Your task to perform on an android device: check the backup settings in the google photos Image 0: 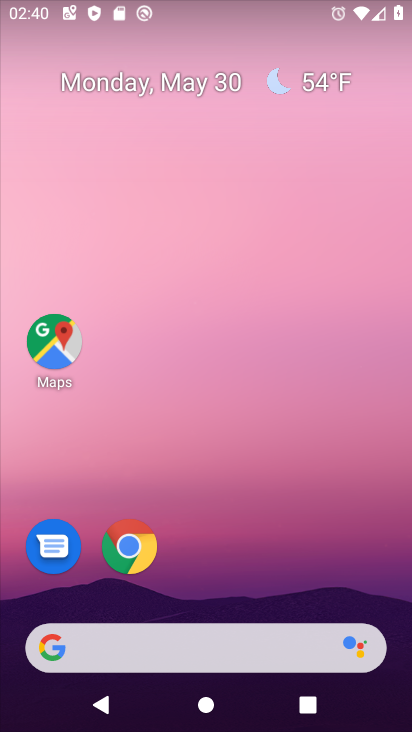
Step 0: drag from (214, 597) to (242, 100)
Your task to perform on an android device: check the backup settings in the google photos Image 1: 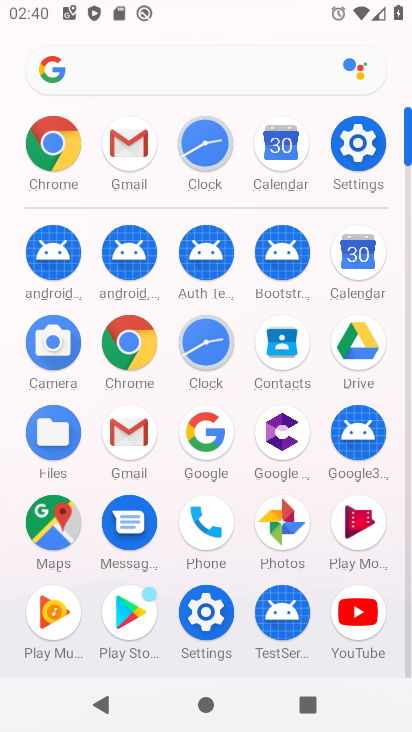
Step 1: click (279, 518)
Your task to perform on an android device: check the backup settings in the google photos Image 2: 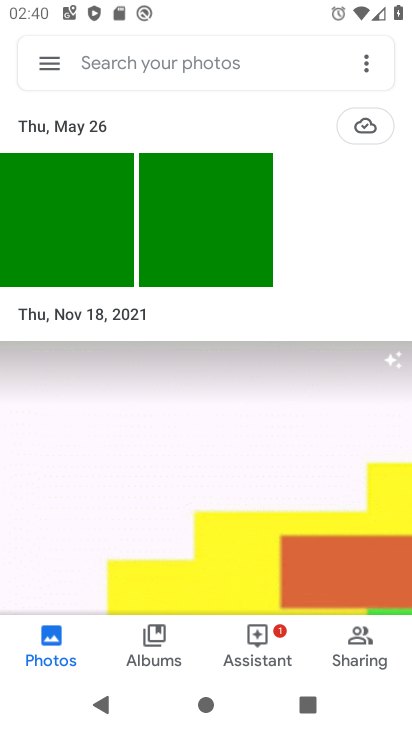
Step 2: click (49, 54)
Your task to perform on an android device: check the backup settings in the google photos Image 3: 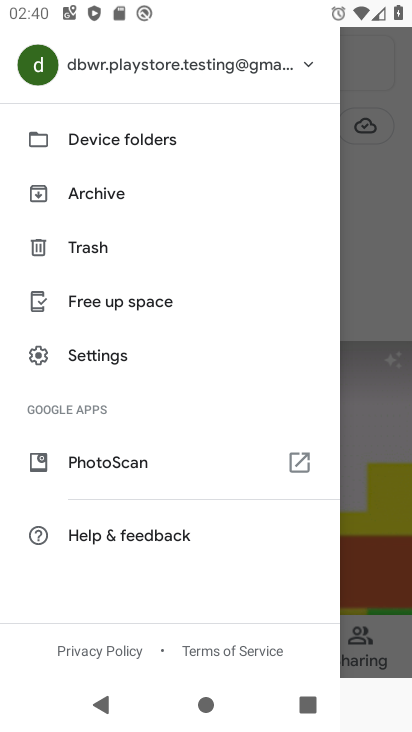
Step 3: click (136, 357)
Your task to perform on an android device: check the backup settings in the google photos Image 4: 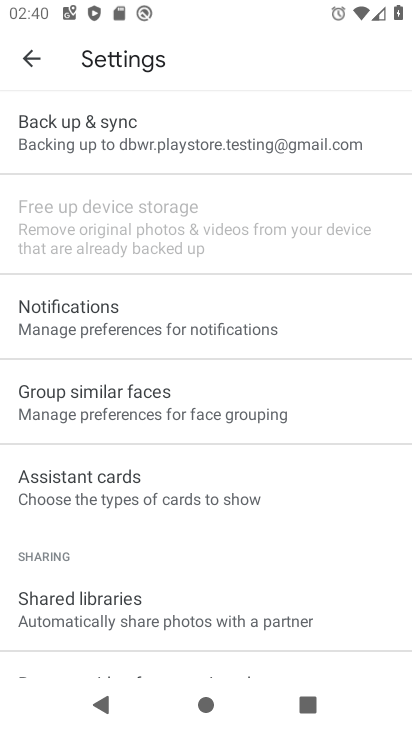
Step 4: click (184, 119)
Your task to perform on an android device: check the backup settings in the google photos Image 5: 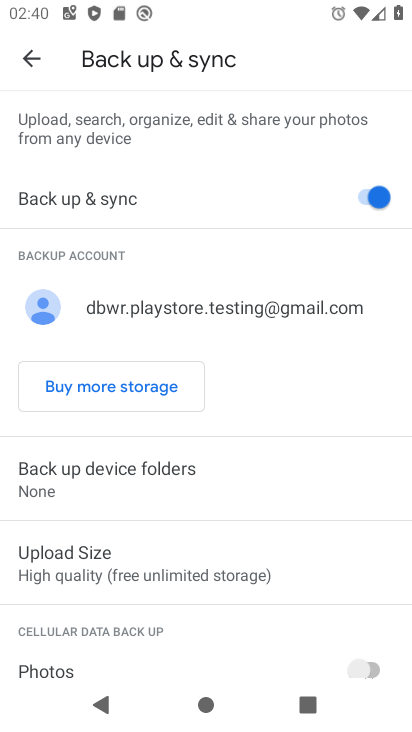
Step 5: click (173, 593)
Your task to perform on an android device: check the backup settings in the google photos Image 6: 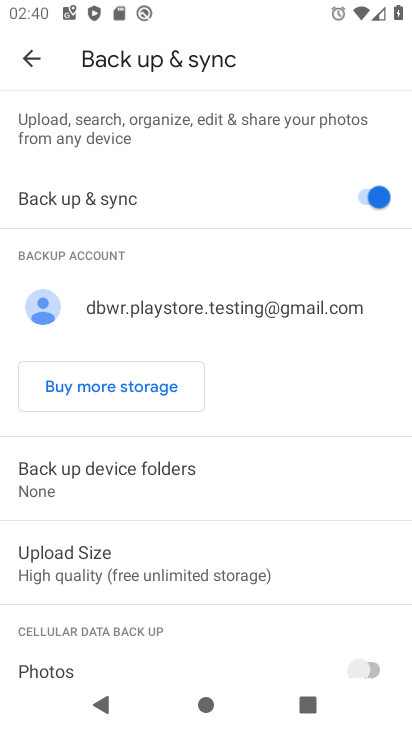
Step 6: drag from (208, 409) to (235, 232)
Your task to perform on an android device: check the backup settings in the google photos Image 7: 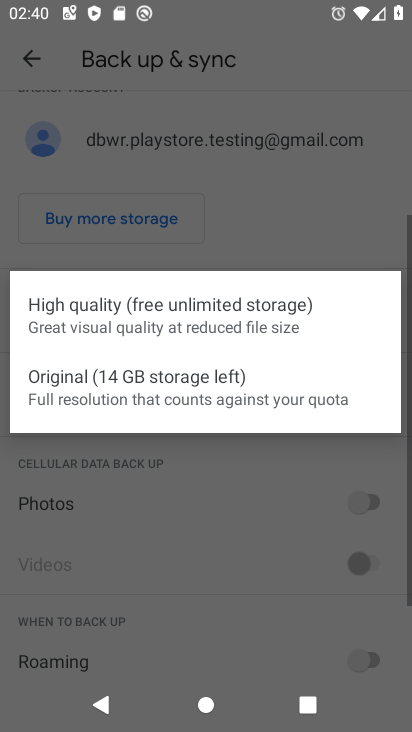
Step 7: click (190, 538)
Your task to perform on an android device: check the backup settings in the google photos Image 8: 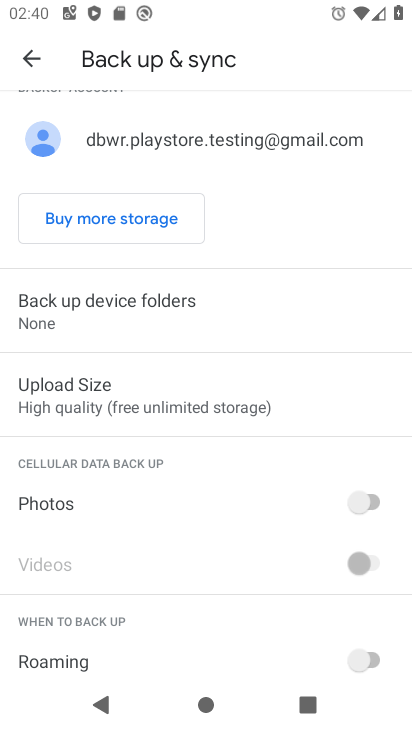
Step 8: task complete